Your task to perform on an android device: search for starred emails in the gmail app Image 0: 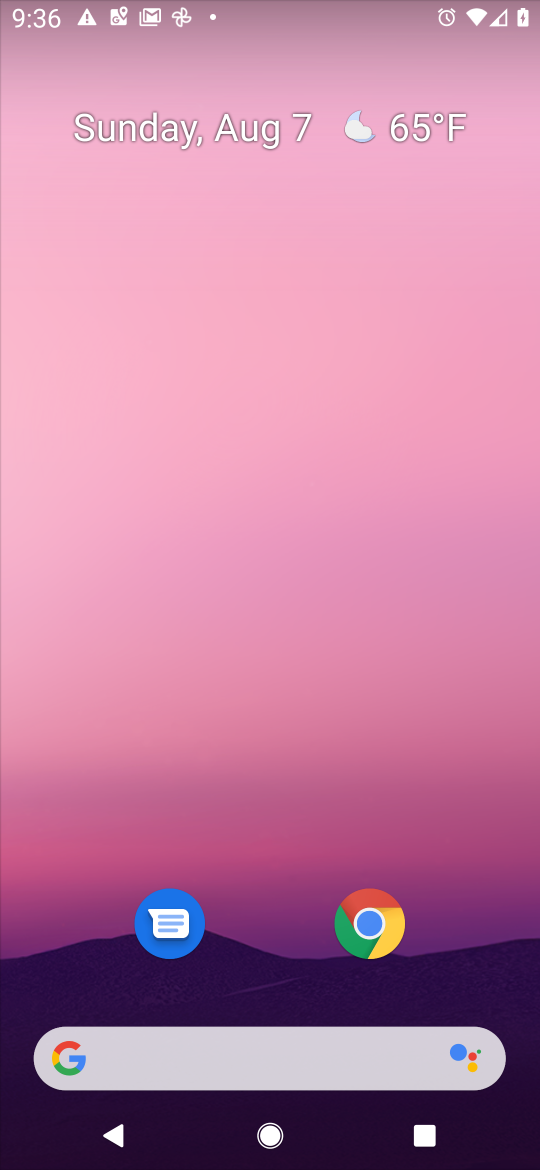
Step 0: drag from (433, 711) to (283, 156)
Your task to perform on an android device: search for starred emails in the gmail app Image 1: 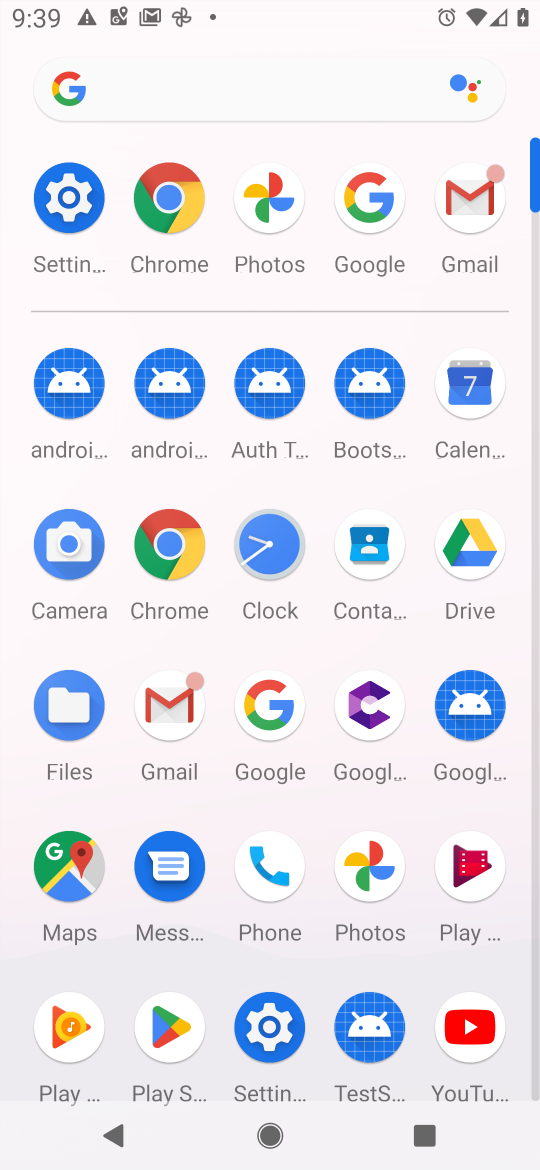
Step 1: click (196, 692)
Your task to perform on an android device: search for starred emails in the gmail app Image 2: 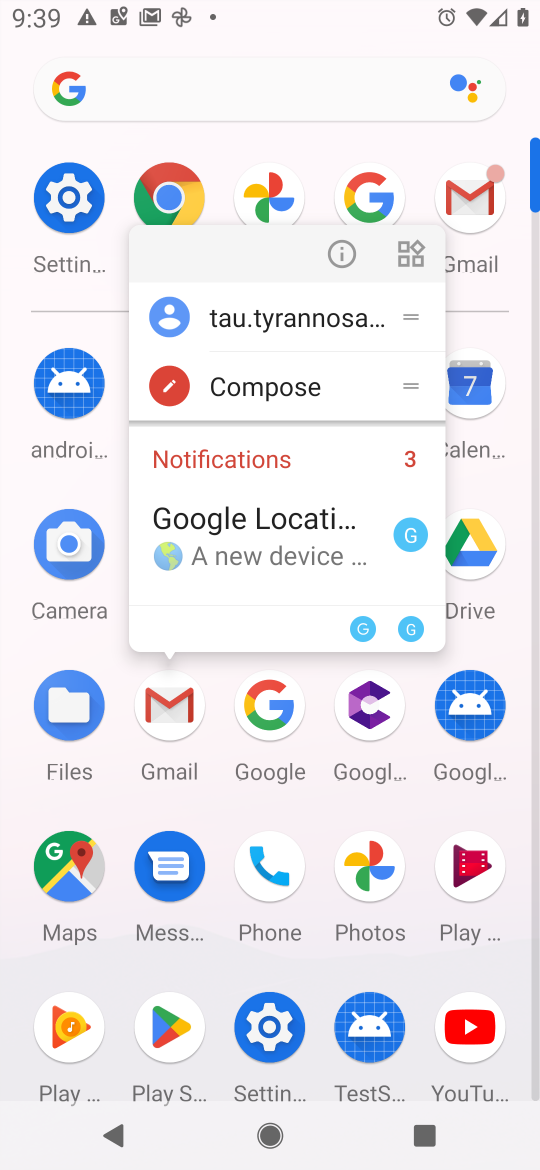
Step 2: click (196, 692)
Your task to perform on an android device: search for starred emails in the gmail app Image 3: 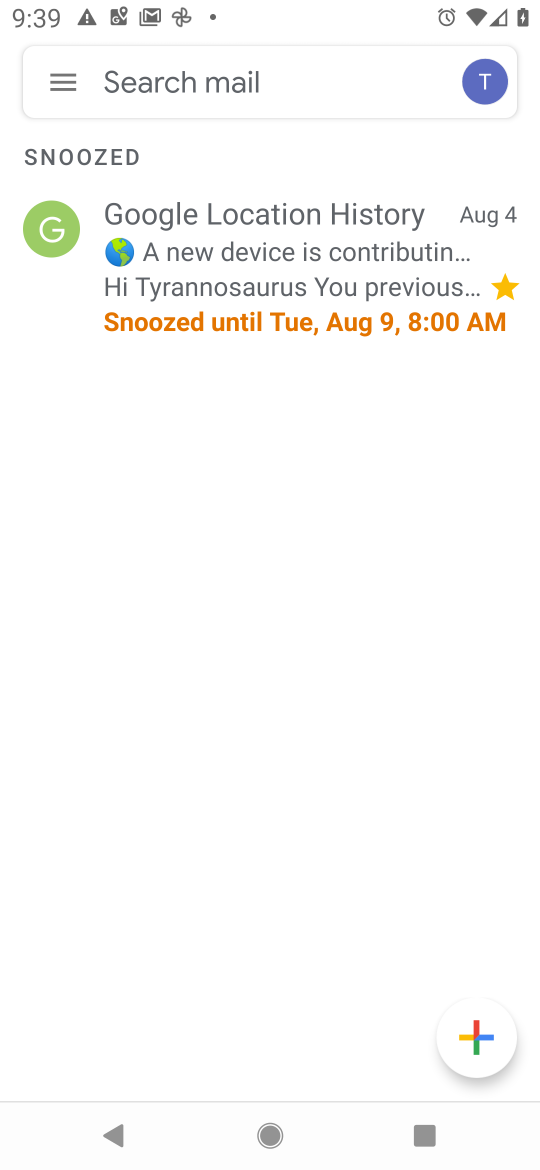
Step 3: click (64, 74)
Your task to perform on an android device: search for starred emails in the gmail app Image 4: 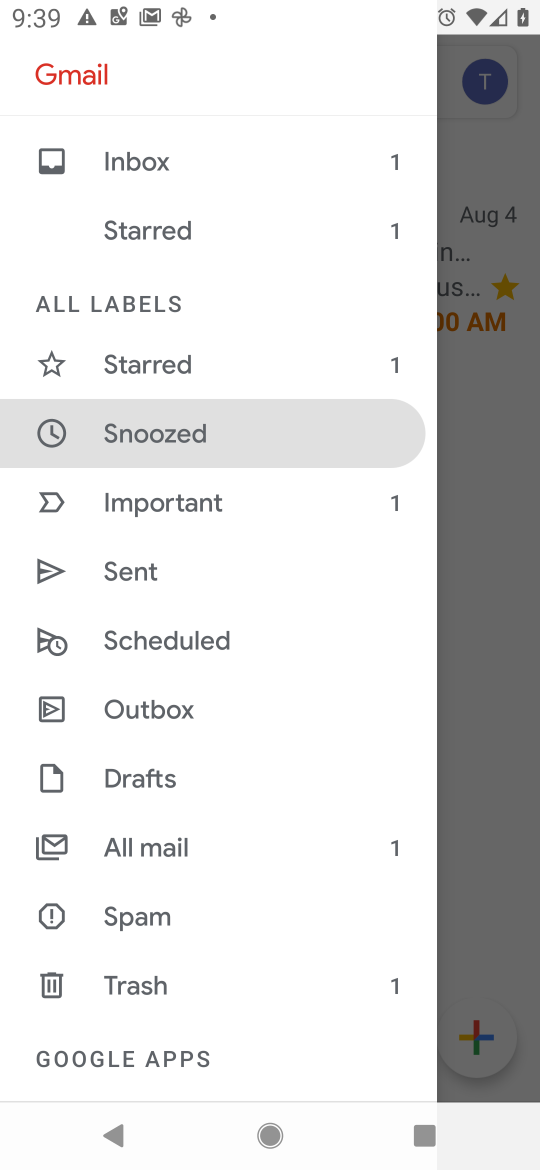
Step 4: click (134, 366)
Your task to perform on an android device: search for starred emails in the gmail app Image 5: 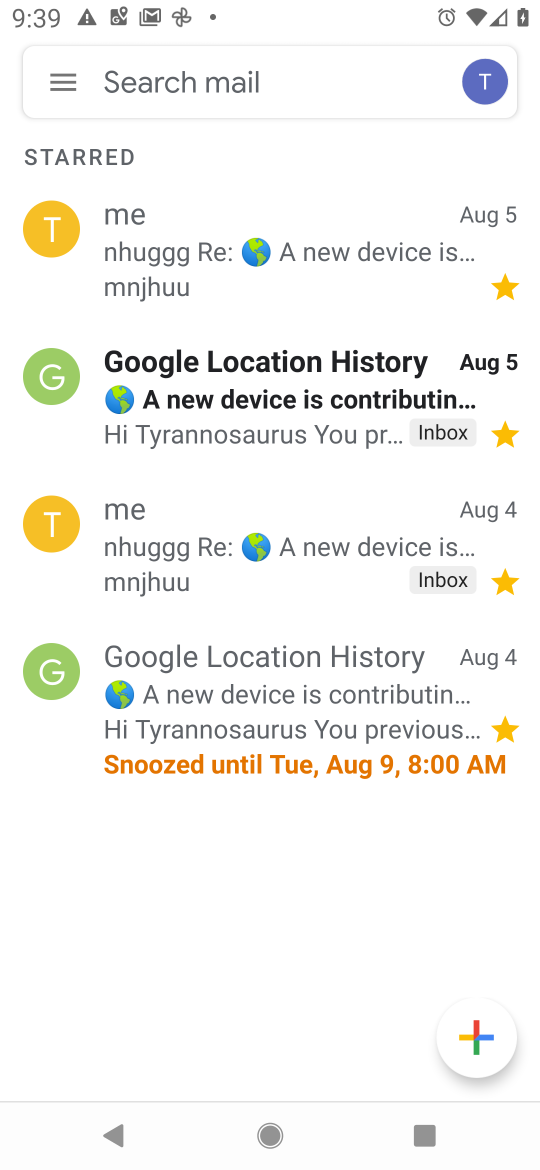
Step 5: task complete